Your task to perform on an android device: Open calendar and show me the fourth week of next month Image 0: 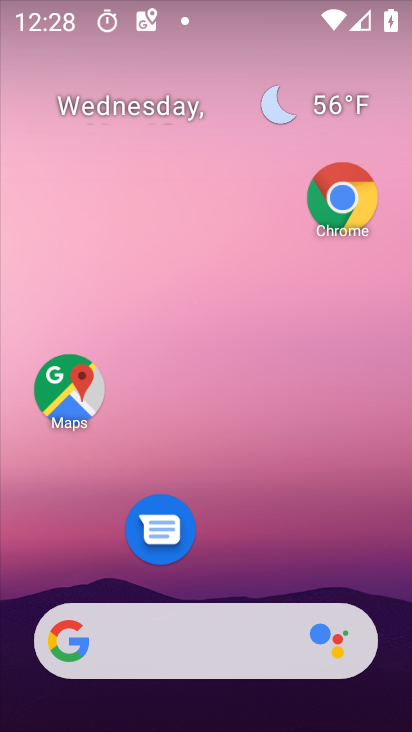
Step 0: click (174, 119)
Your task to perform on an android device: Open calendar and show me the fourth week of next month Image 1: 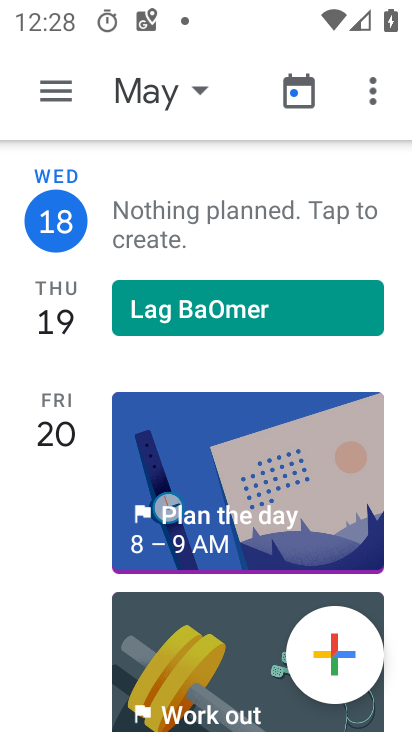
Step 1: click (147, 116)
Your task to perform on an android device: Open calendar and show me the fourth week of next month Image 2: 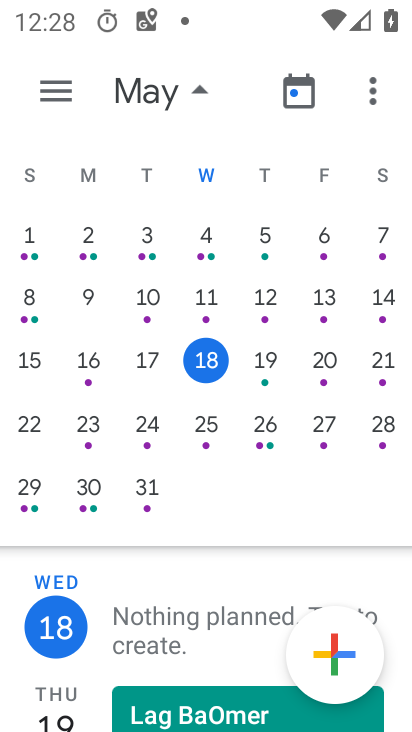
Step 2: drag from (330, 454) to (27, 454)
Your task to perform on an android device: Open calendar and show me the fourth week of next month Image 3: 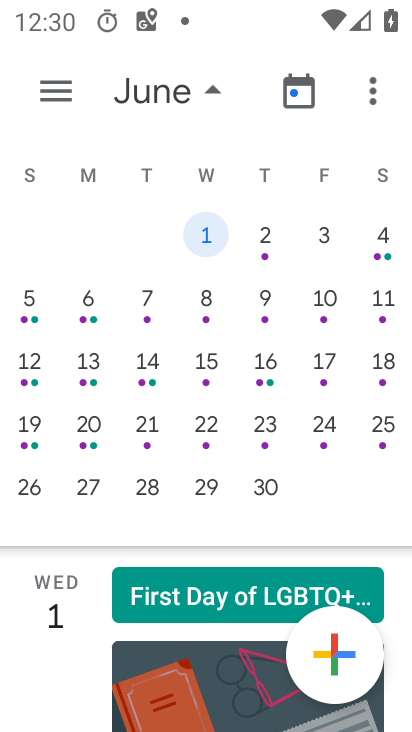
Step 3: click (243, 419)
Your task to perform on an android device: Open calendar and show me the fourth week of next month Image 4: 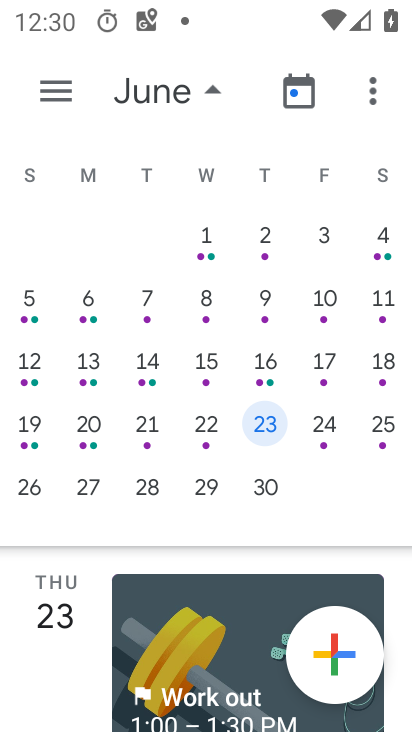
Step 4: task complete